Your task to perform on an android device: Go to Reddit.com Image 0: 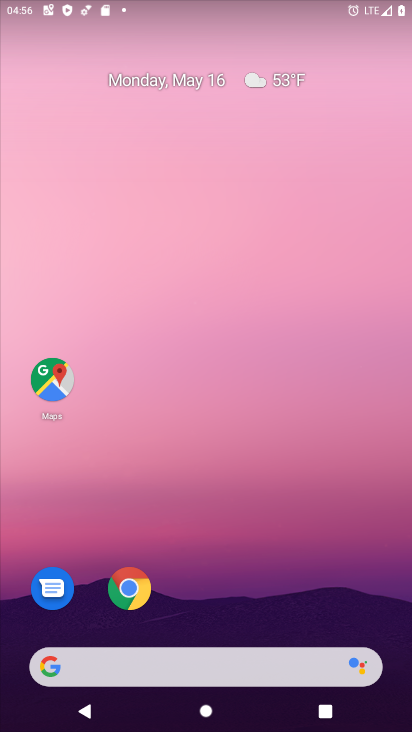
Step 0: drag from (216, 544) to (210, 17)
Your task to perform on an android device: Go to Reddit.com Image 1: 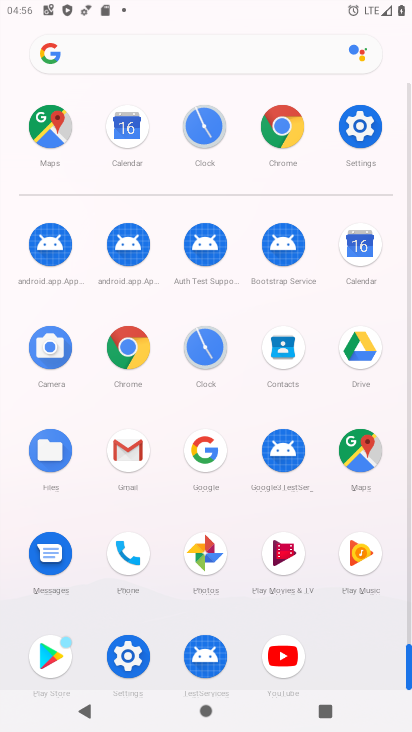
Step 1: click (131, 342)
Your task to perform on an android device: Go to Reddit.com Image 2: 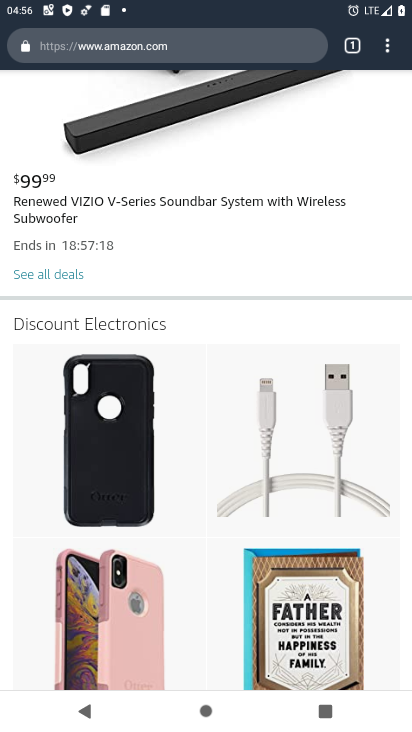
Step 2: drag from (207, 99) to (258, 422)
Your task to perform on an android device: Go to Reddit.com Image 3: 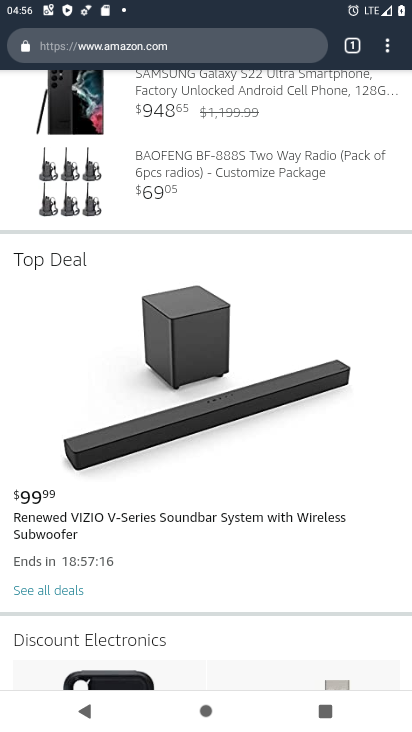
Step 3: click (200, 54)
Your task to perform on an android device: Go to Reddit.com Image 4: 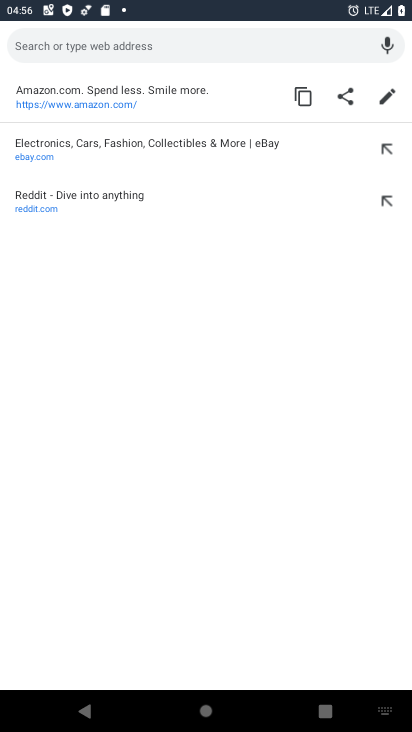
Step 4: click (106, 211)
Your task to perform on an android device: Go to Reddit.com Image 5: 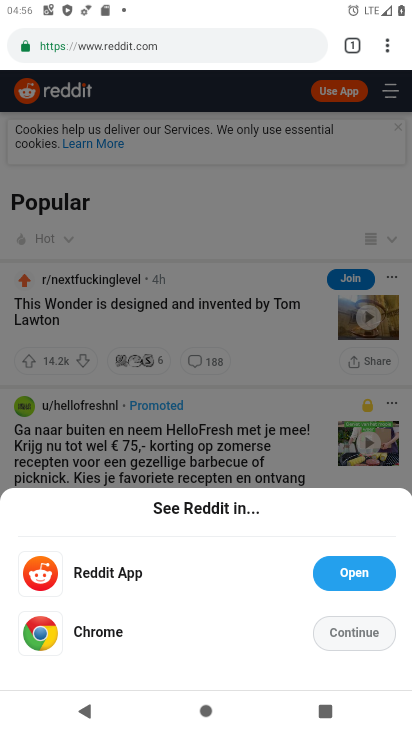
Step 5: task complete